Your task to perform on an android device: allow cookies in the chrome app Image 0: 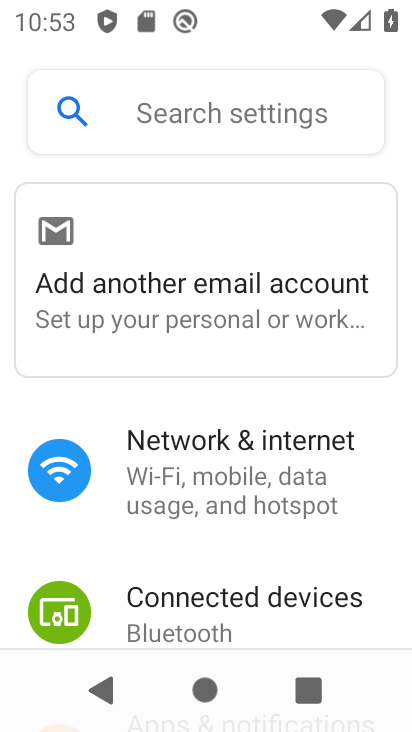
Step 0: press home button
Your task to perform on an android device: allow cookies in the chrome app Image 1: 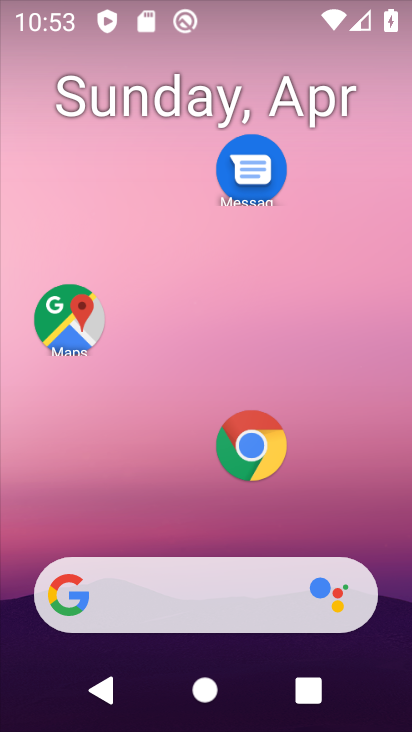
Step 1: drag from (167, 597) to (308, 65)
Your task to perform on an android device: allow cookies in the chrome app Image 2: 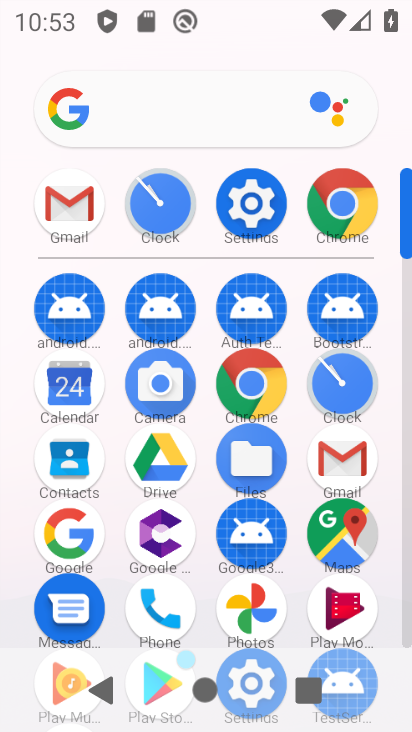
Step 2: click (347, 217)
Your task to perform on an android device: allow cookies in the chrome app Image 3: 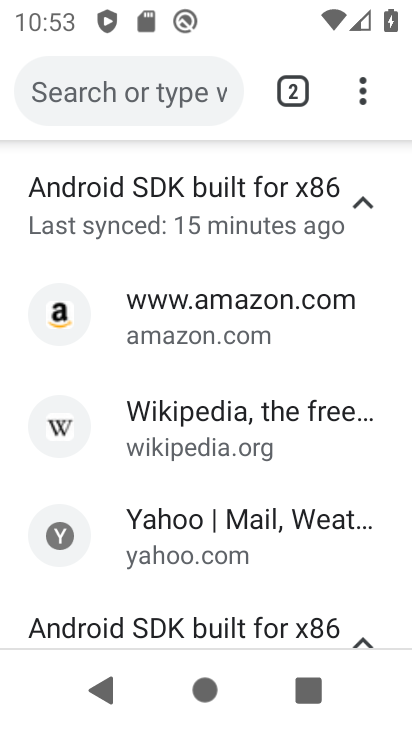
Step 3: drag from (365, 90) to (139, 477)
Your task to perform on an android device: allow cookies in the chrome app Image 4: 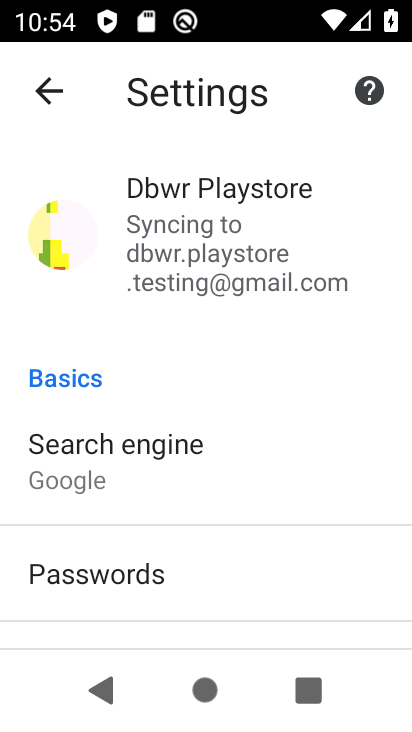
Step 4: drag from (131, 584) to (321, 259)
Your task to perform on an android device: allow cookies in the chrome app Image 5: 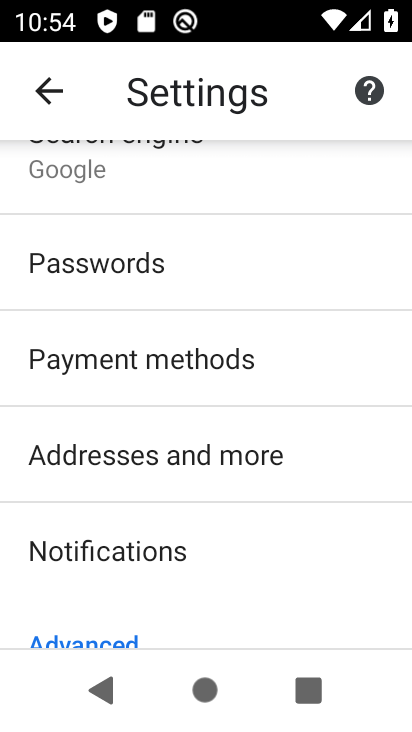
Step 5: drag from (148, 553) to (291, 191)
Your task to perform on an android device: allow cookies in the chrome app Image 6: 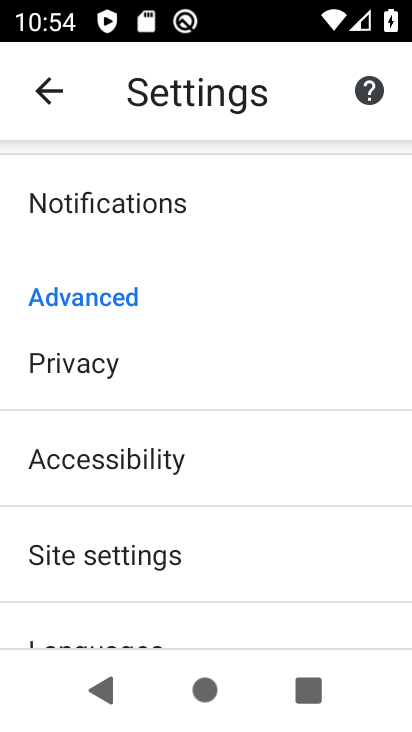
Step 6: click (130, 553)
Your task to perform on an android device: allow cookies in the chrome app Image 7: 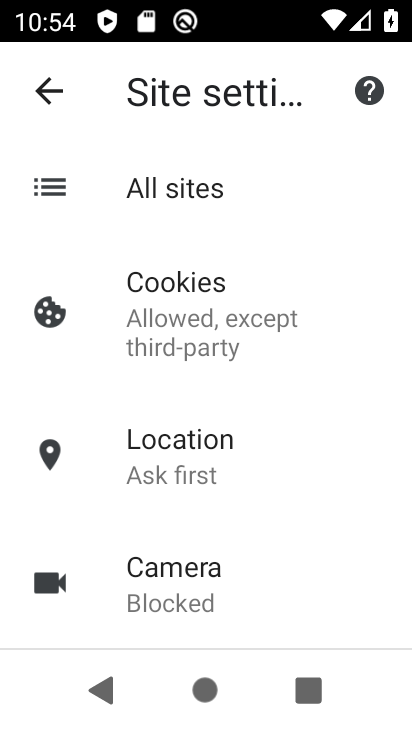
Step 7: click (185, 321)
Your task to perform on an android device: allow cookies in the chrome app Image 8: 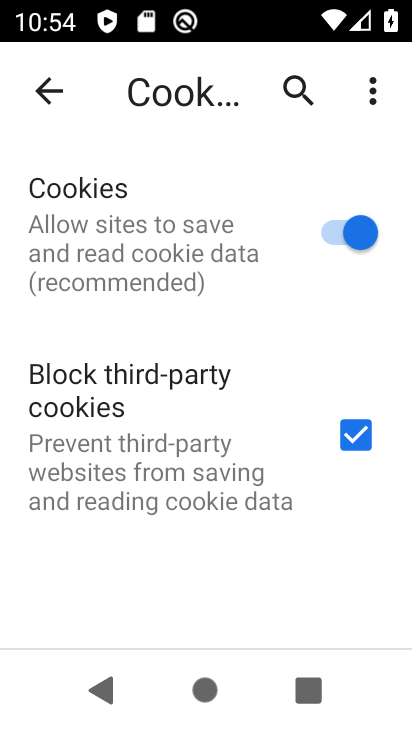
Step 8: task complete